Your task to perform on an android device: turn notification dots off Image 0: 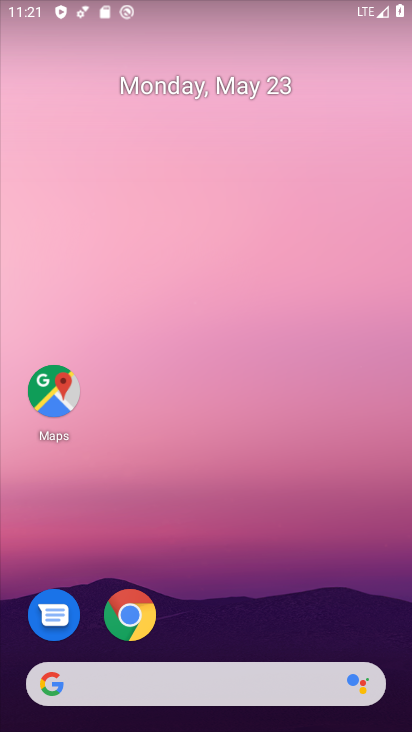
Step 0: drag from (224, 607) to (217, 68)
Your task to perform on an android device: turn notification dots off Image 1: 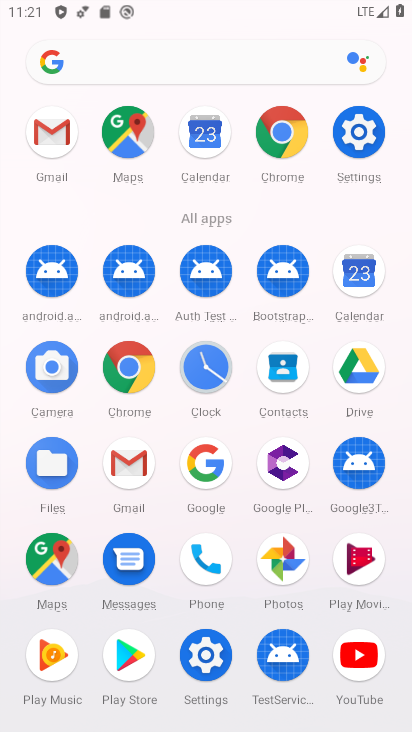
Step 1: click (356, 119)
Your task to perform on an android device: turn notification dots off Image 2: 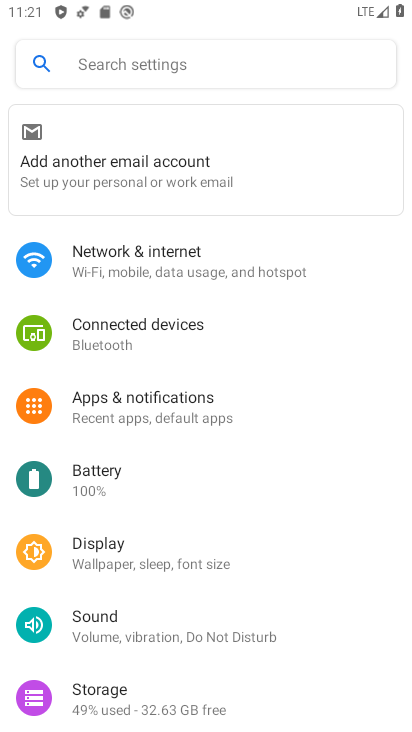
Step 2: click (118, 402)
Your task to perform on an android device: turn notification dots off Image 3: 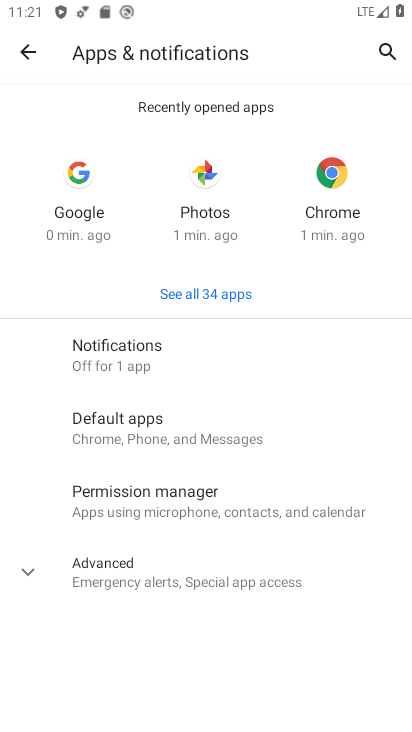
Step 3: click (148, 370)
Your task to perform on an android device: turn notification dots off Image 4: 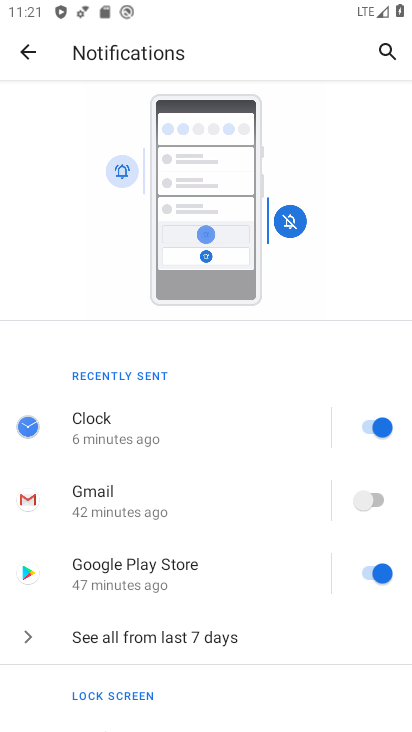
Step 4: drag from (119, 683) to (195, 172)
Your task to perform on an android device: turn notification dots off Image 5: 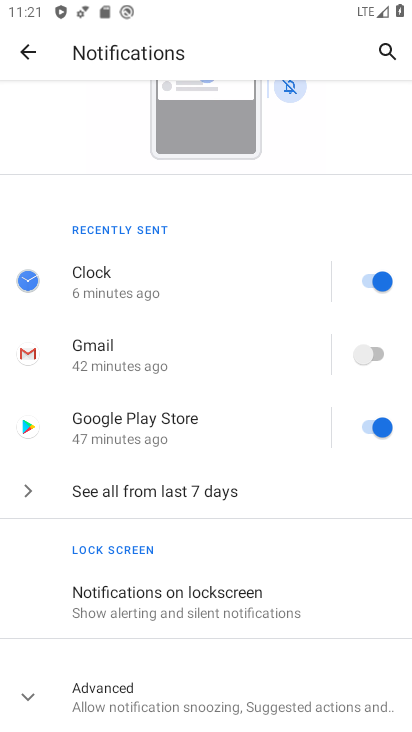
Step 5: click (112, 683)
Your task to perform on an android device: turn notification dots off Image 6: 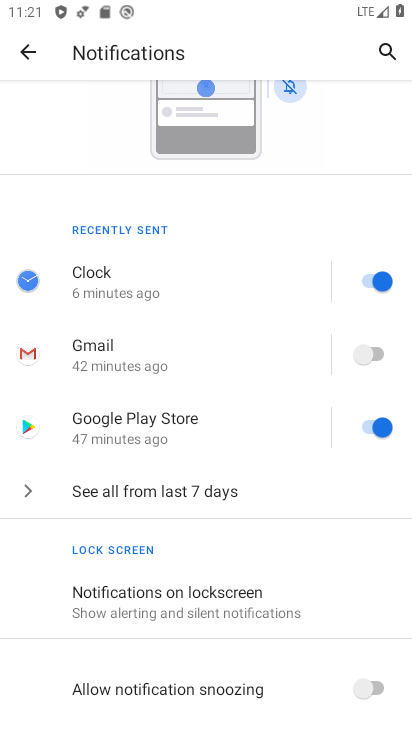
Step 6: task complete